Your task to perform on an android device: Open Google Chrome and click the shortcut for Amazon.com Image 0: 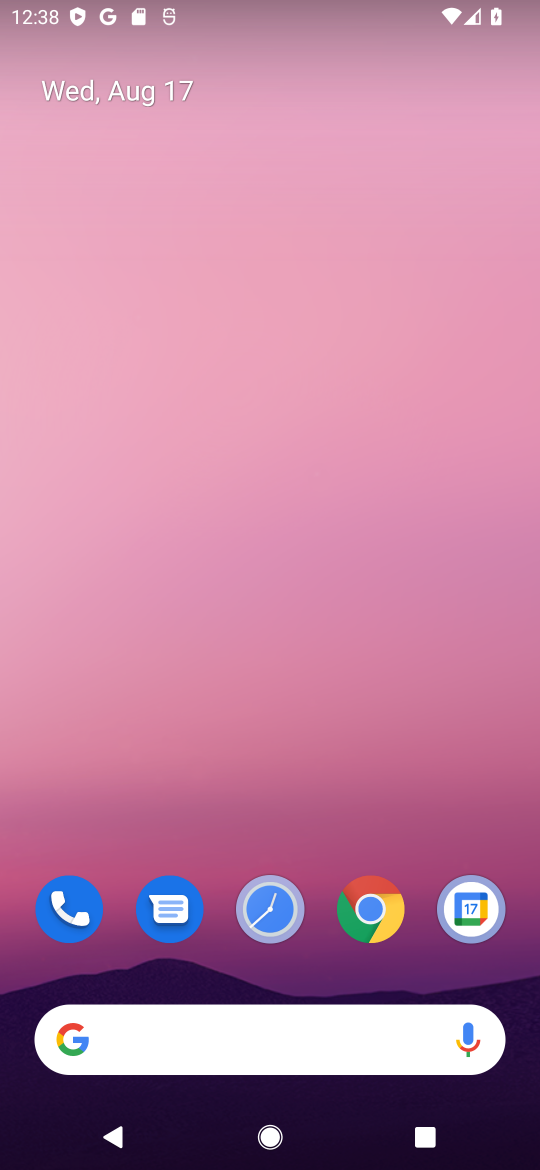
Step 0: click (392, 911)
Your task to perform on an android device: Open Google Chrome and click the shortcut for Amazon.com Image 1: 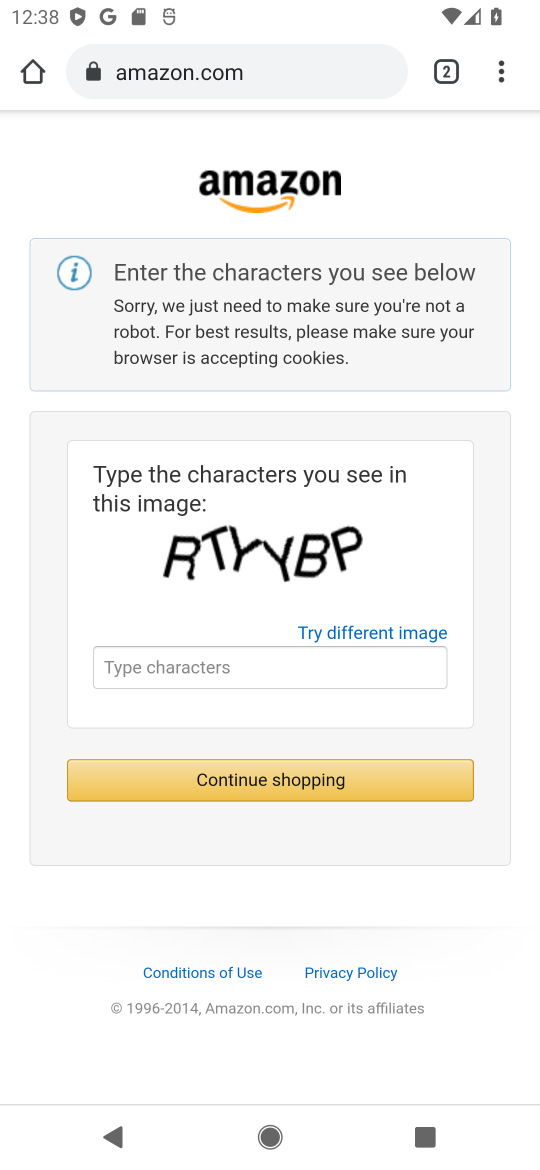
Step 1: click (498, 73)
Your task to perform on an android device: Open Google Chrome and click the shortcut for Amazon.com Image 2: 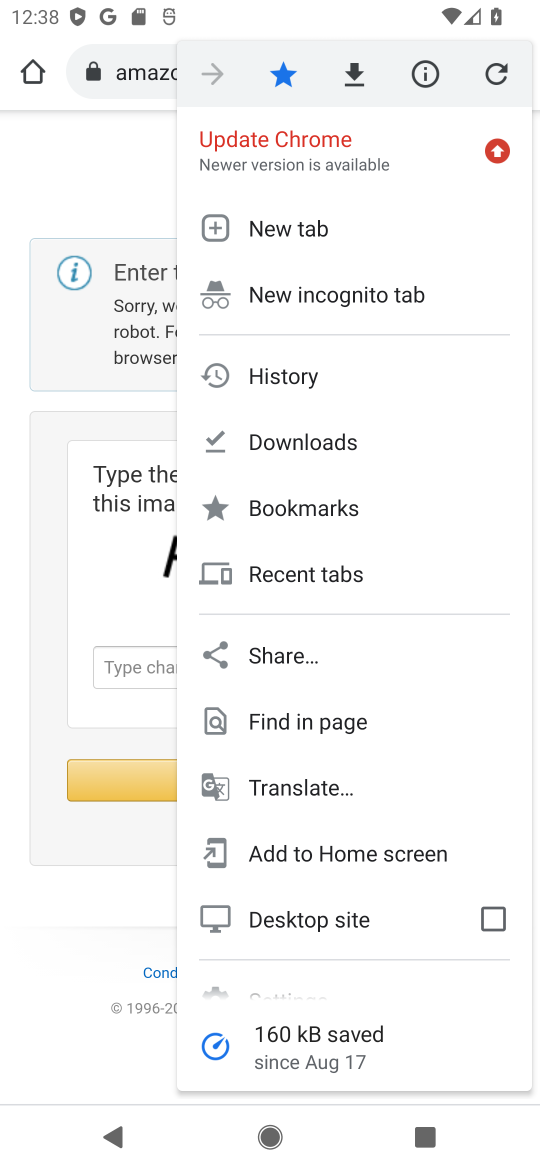
Step 2: click (299, 211)
Your task to perform on an android device: Open Google Chrome and click the shortcut for Amazon.com Image 3: 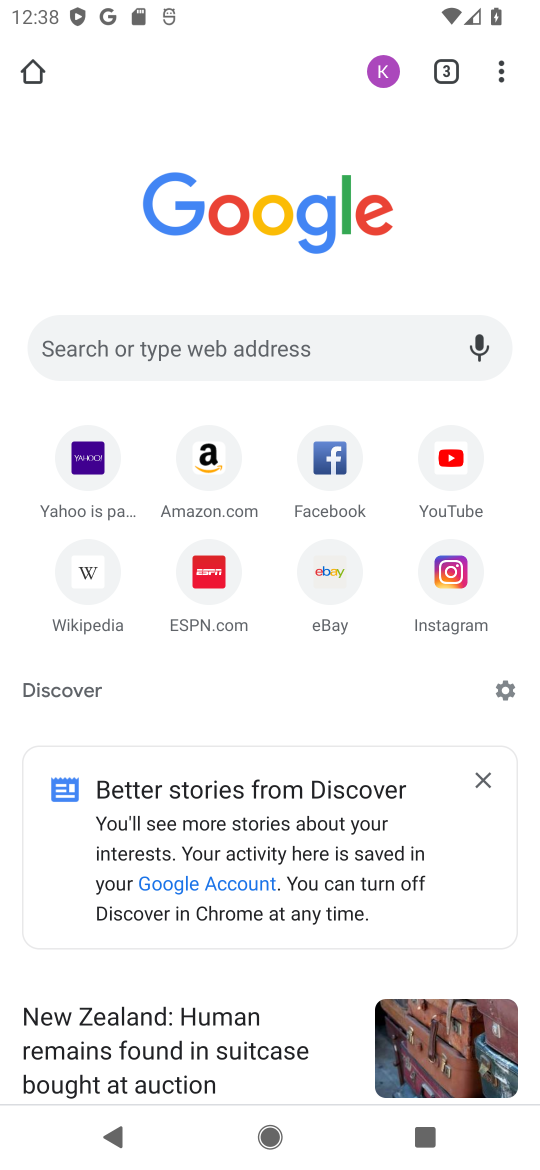
Step 3: click (211, 454)
Your task to perform on an android device: Open Google Chrome and click the shortcut for Amazon.com Image 4: 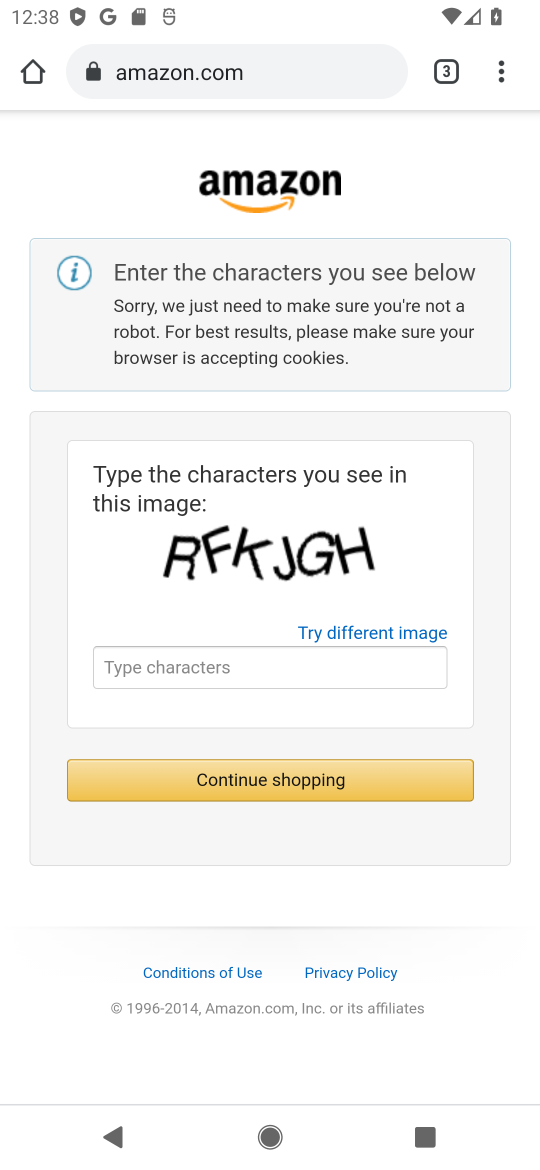
Step 4: task complete